Your task to perform on an android device: Go to battery settings Image 0: 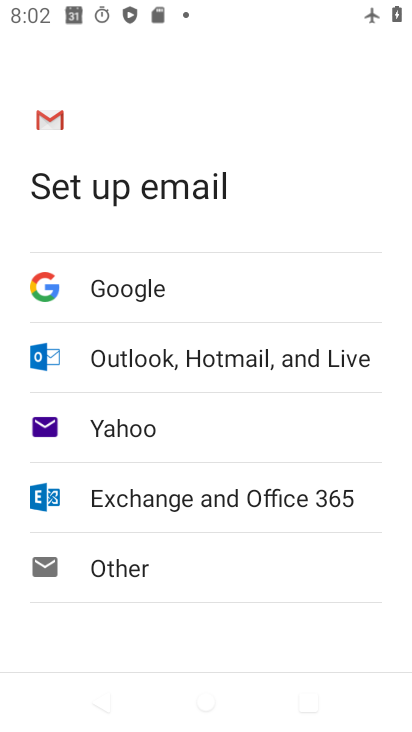
Step 0: press home button
Your task to perform on an android device: Go to battery settings Image 1: 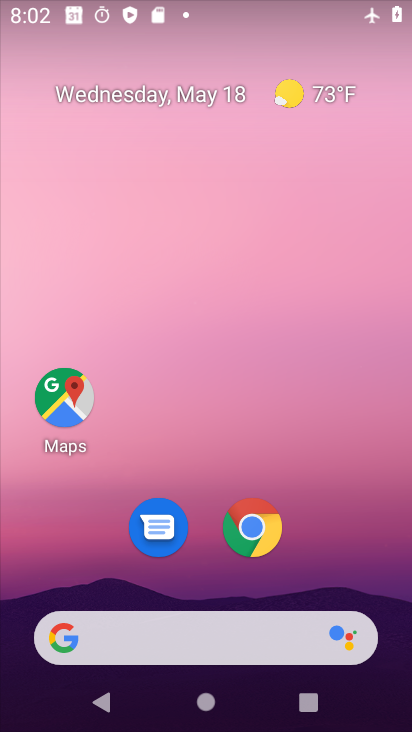
Step 1: drag from (395, 703) to (359, 240)
Your task to perform on an android device: Go to battery settings Image 2: 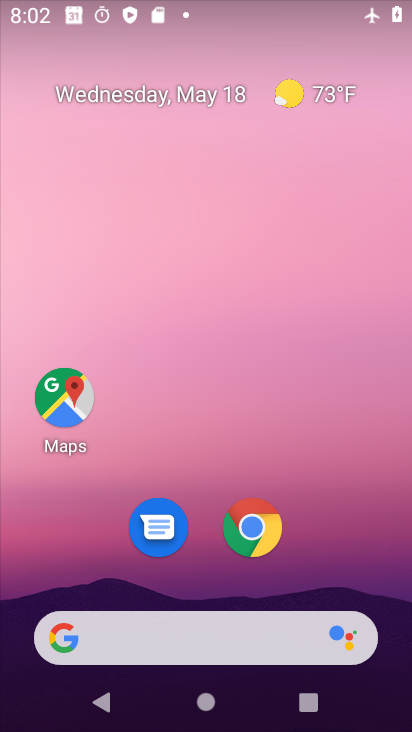
Step 2: drag from (401, 712) to (400, 155)
Your task to perform on an android device: Go to battery settings Image 3: 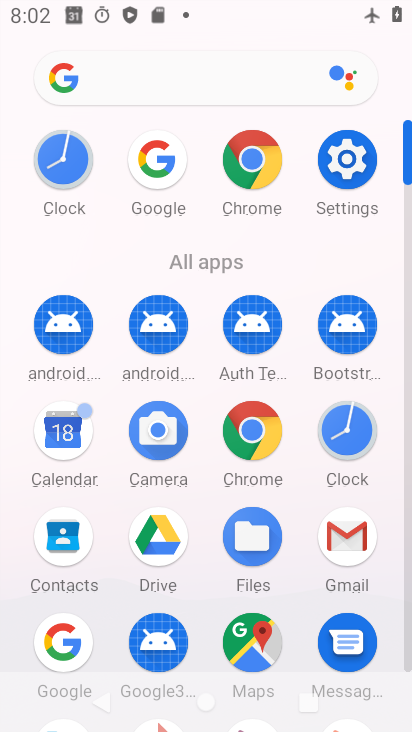
Step 3: click (343, 156)
Your task to perform on an android device: Go to battery settings Image 4: 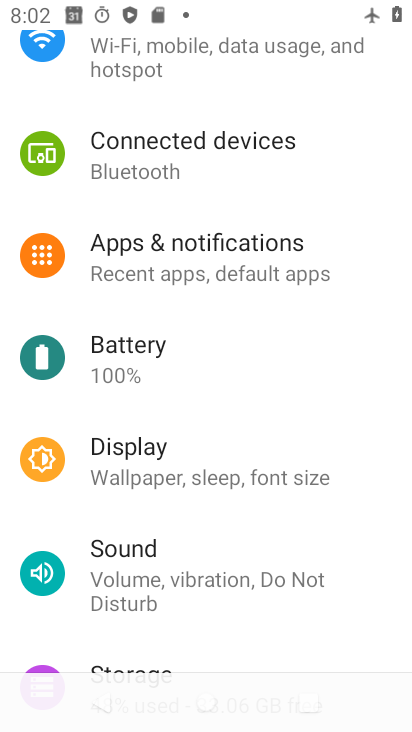
Step 4: click (118, 369)
Your task to perform on an android device: Go to battery settings Image 5: 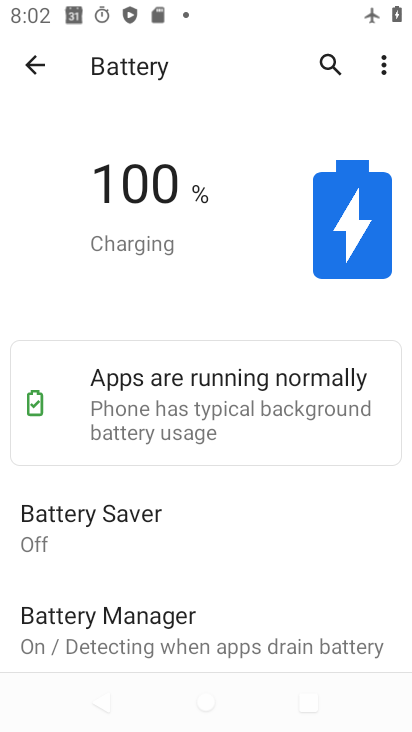
Step 5: task complete